Your task to perform on an android device: Add "macbook pro 13 inch" to the cart on costco Image 0: 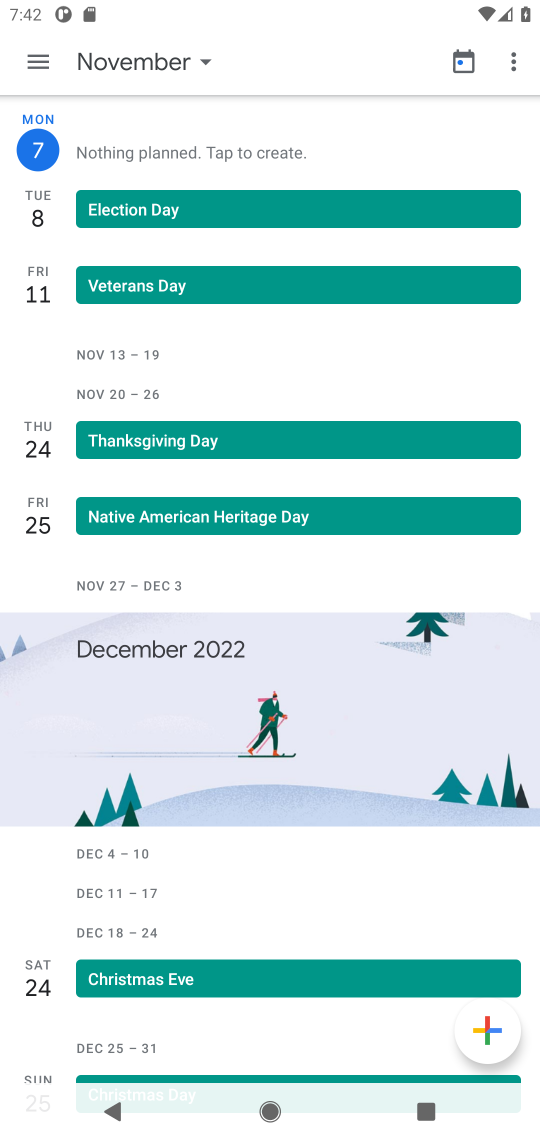
Step 0: press home button
Your task to perform on an android device: Add "macbook pro 13 inch" to the cart on costco Image 1: 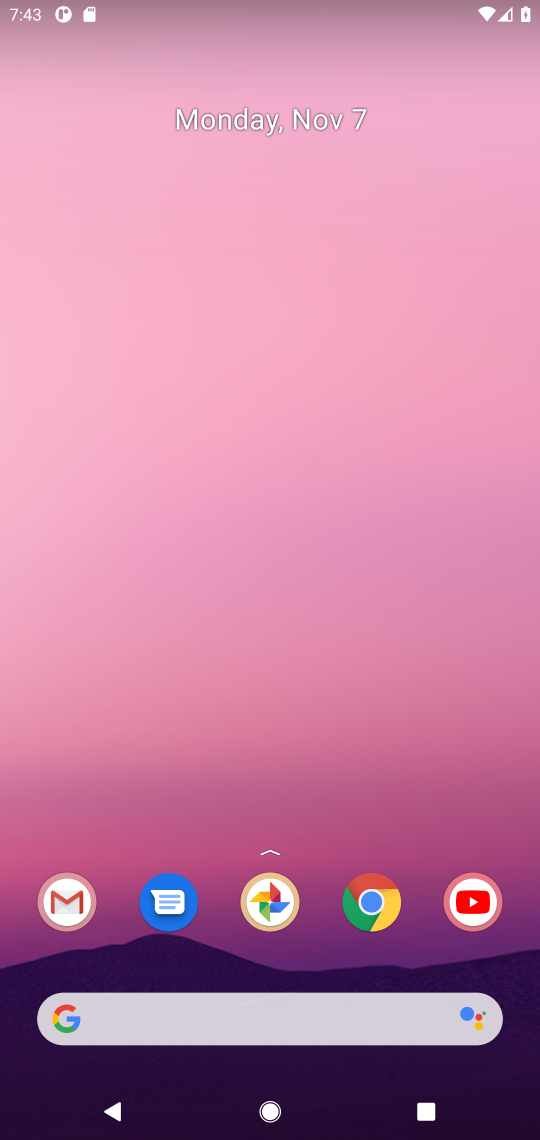
Step 1: click (370, 907)
Your task to perform on an android device: Add "macbook pro 13 inch" to the cart on costco Image 2: 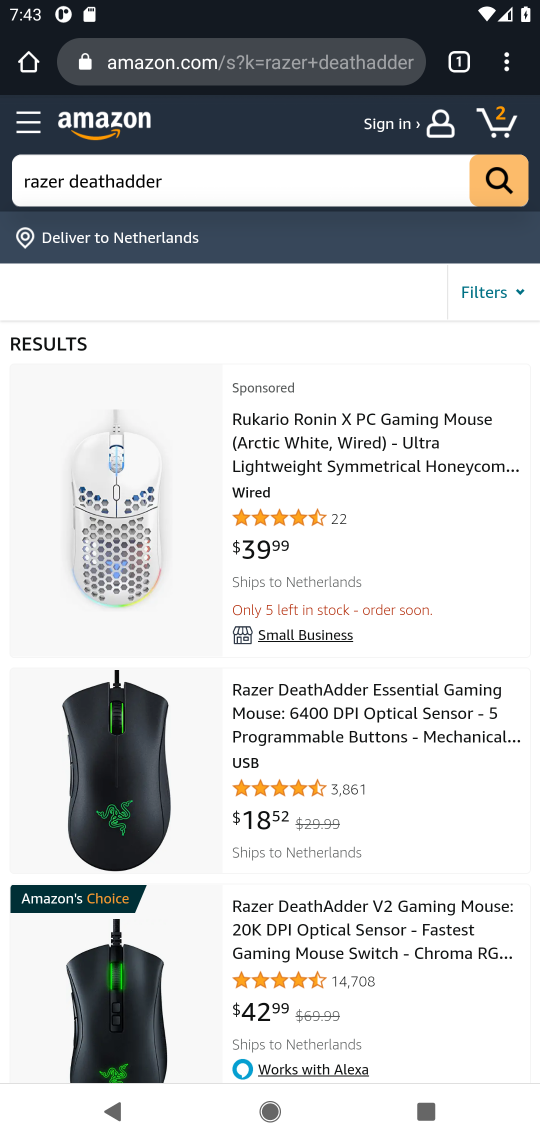
Step 2: click (232, 72)
Your task to perform on an android device: Add "macbook pro 13 inch" to the cart on costco Image 3: 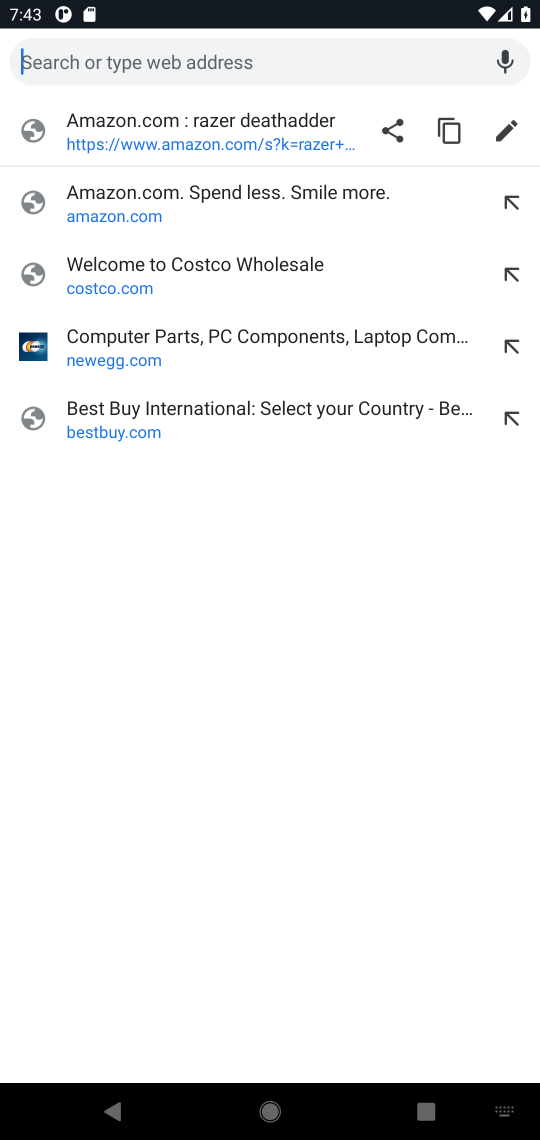
Step 3: click (80, 277)
Your task to perform on an android device: Add "macbook pro 13 inch" to the cart on costco Image 4: 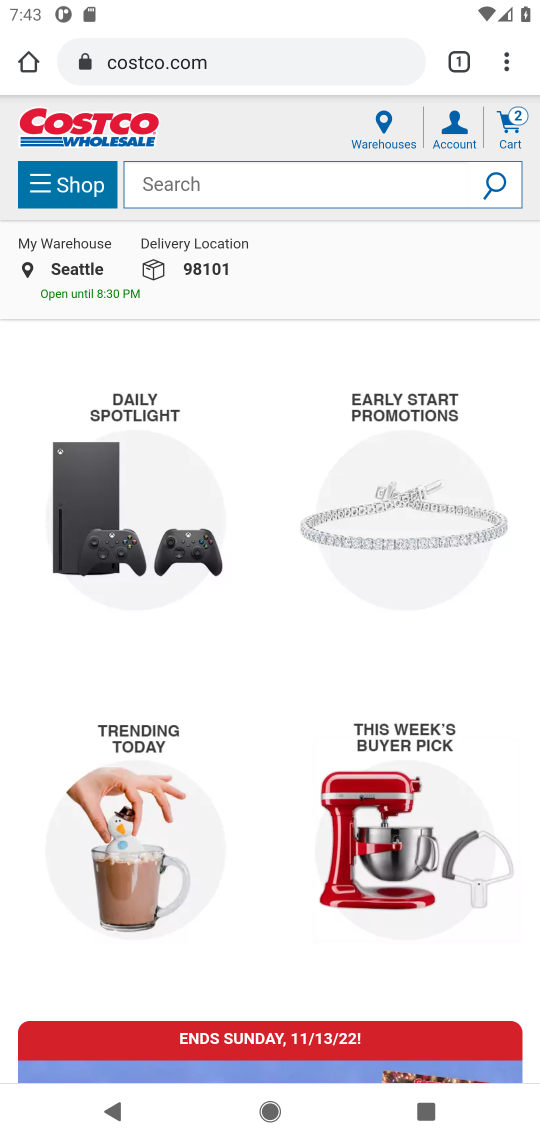
Step 4: click (248, 190)
Your task to perform on an android device: Add "macbook pro 13 inch" to the cart on costco Image 5: 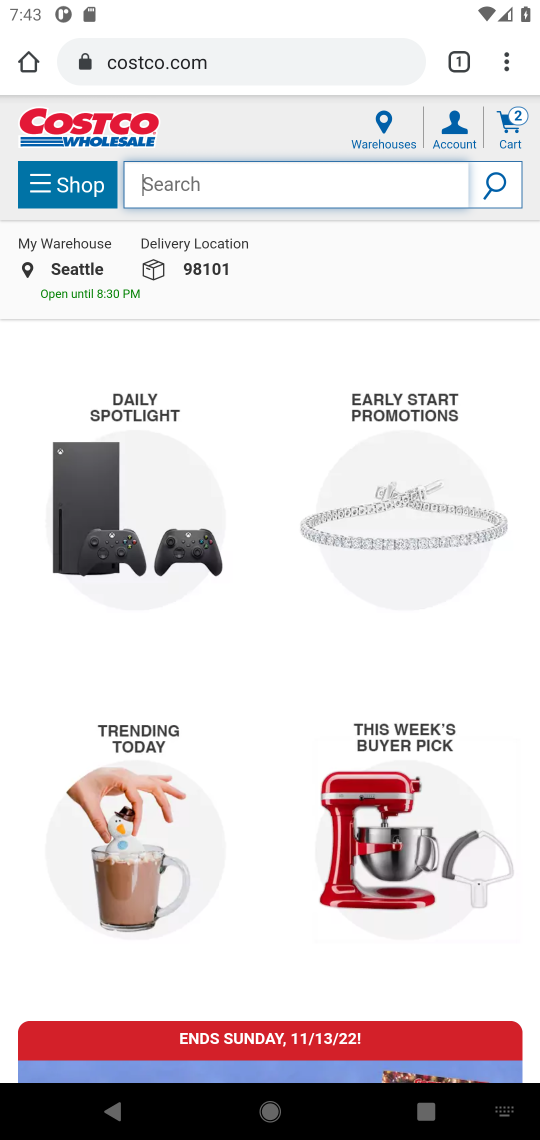
Step 5: type "macbook pro 13 inch"
Your task to perform on an android device: Add "macbook pro 13 inch" to the cart on costco Image 6: 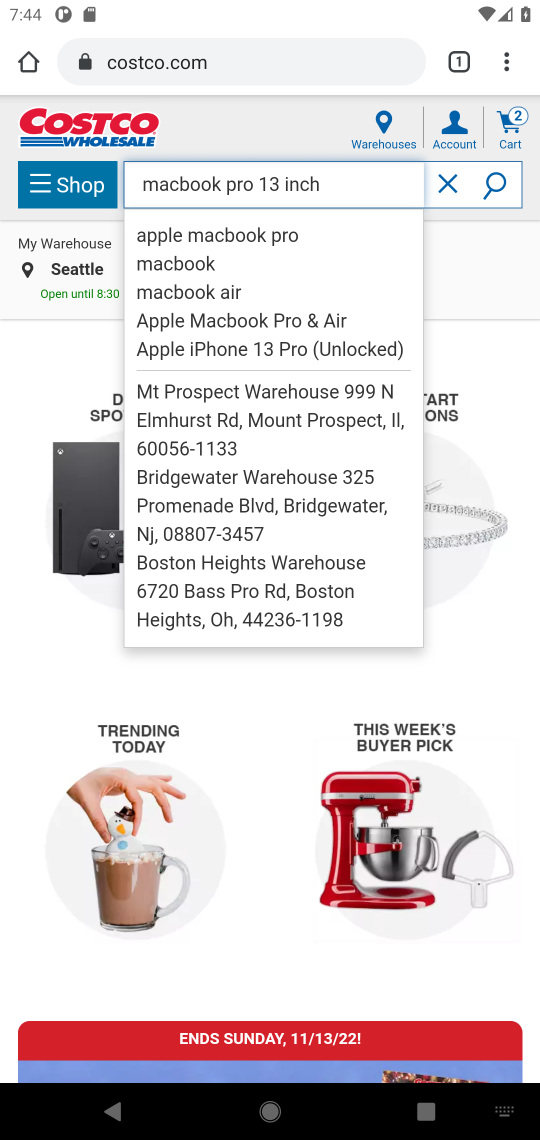
Step 6: click (511, 173)
Your task to perform on an android device: Add "macbook pro 13 inch" to the cart on costco Image 7: 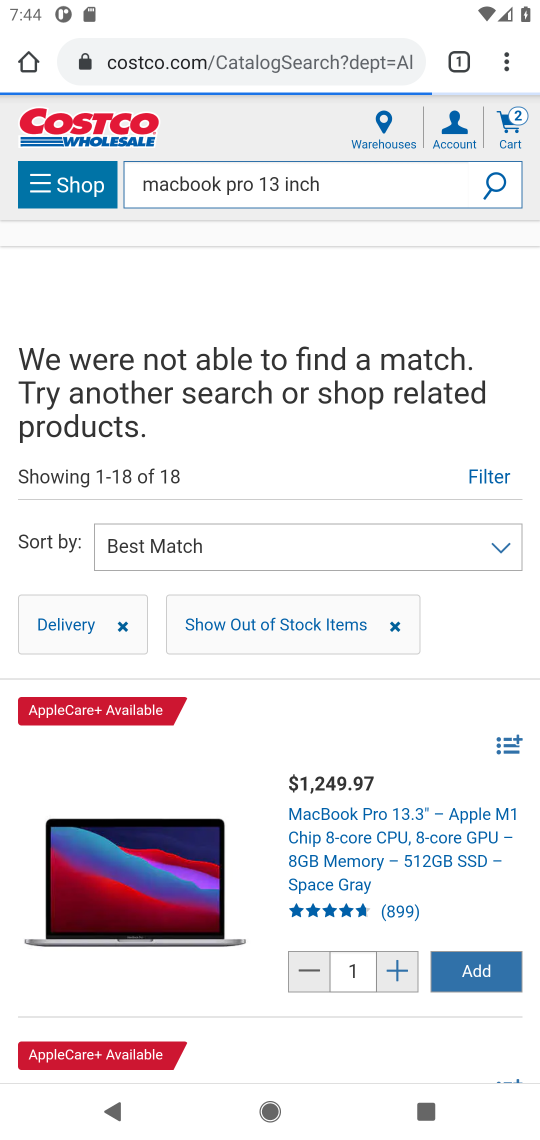
Step 7: task complete